Your task to perform on an android device: Check the weather Image 0: 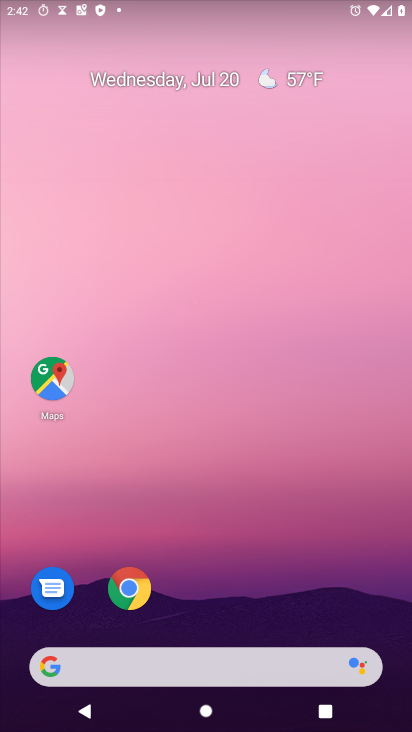
Step 0: drag from (303, 665) to (299, 29)
Your task to perform on an android device: Check the weather Image 1: 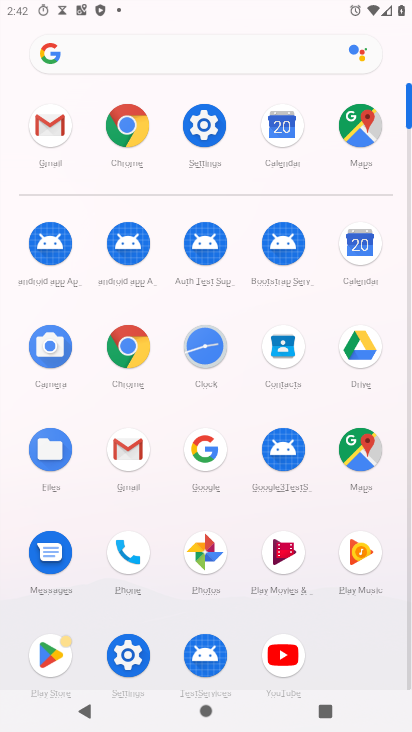
Step 1: click (132, 334)
Your task to perform on an android device: Check the weather Image 2: 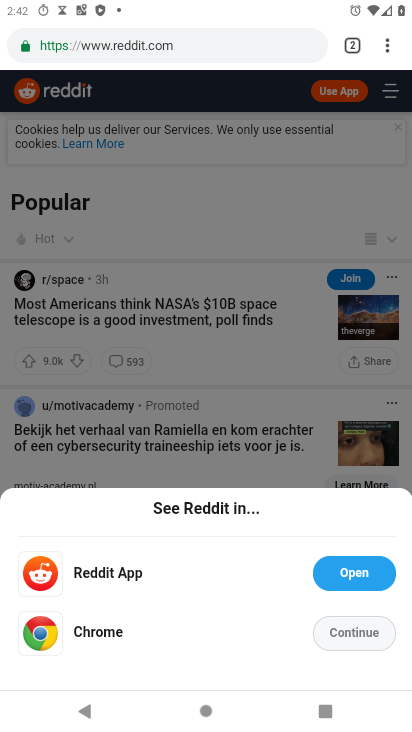
Step 2: click (198, 38)
Your task to perform on an android device: Check the weather Image 3: 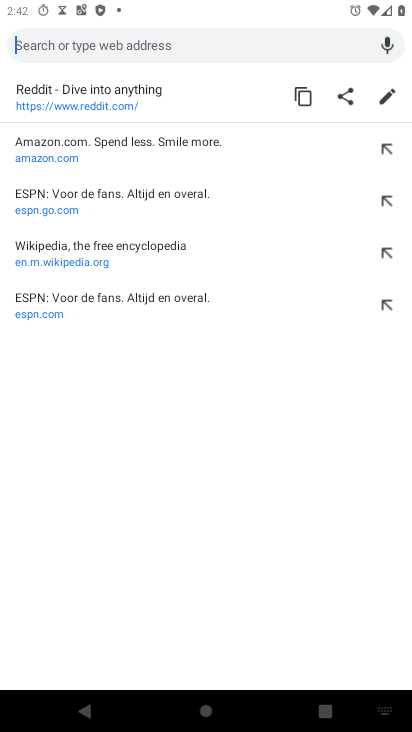
Step 3: type "check the weather"
Your task to perform on an android device: Check the weather Image 4: 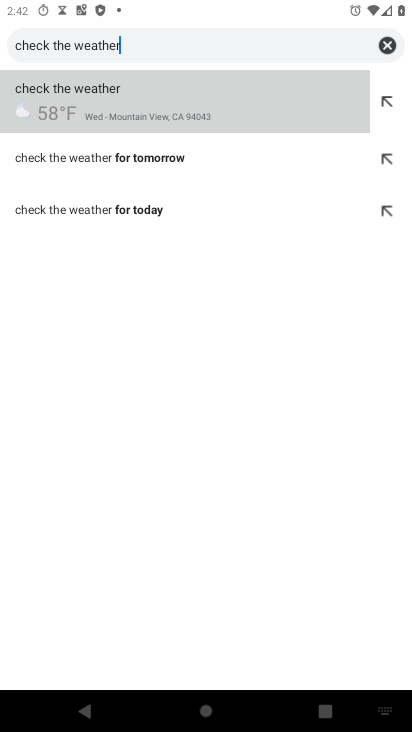
Step 4: click (276, 114)
Your task to perform on an android device: Check the weather Image 5: 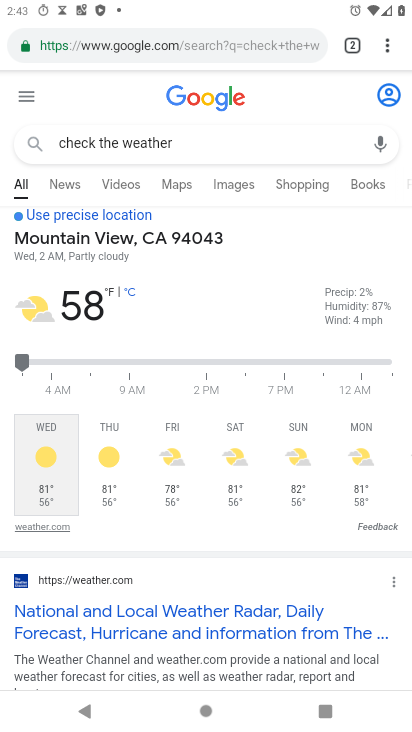
Step 5: task complete